Your task to perform on an android device: toggle pop-ups in chrome Image 0: 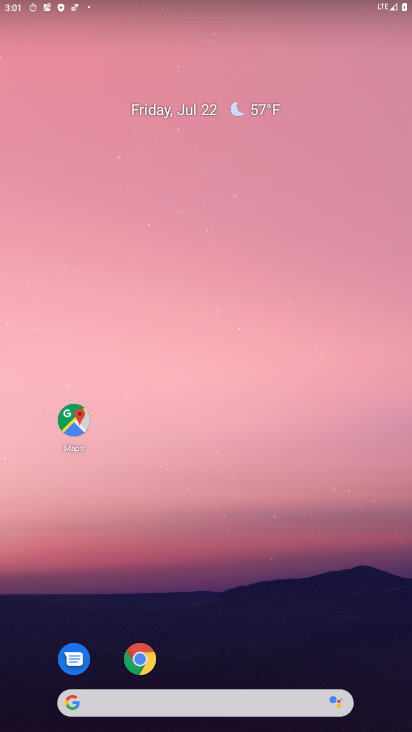
Step 0: click (134, 660)
Your task to perform on an android device: toggle pop-ups in chrome Image 1: 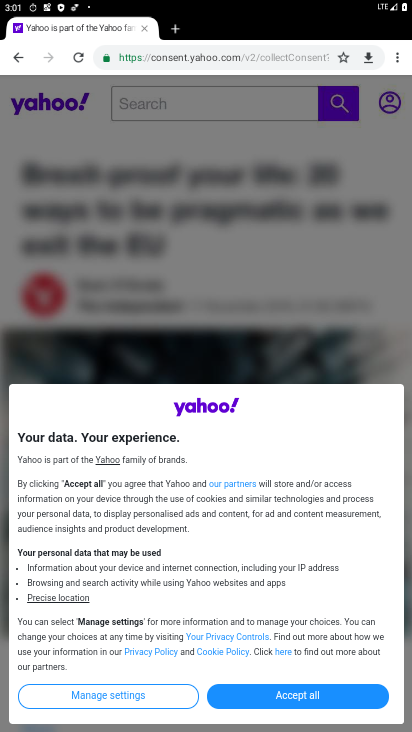
Step 1: click (395, 48)
Your task to perform on an android device: toggle pop-ups in chrome Image 2: 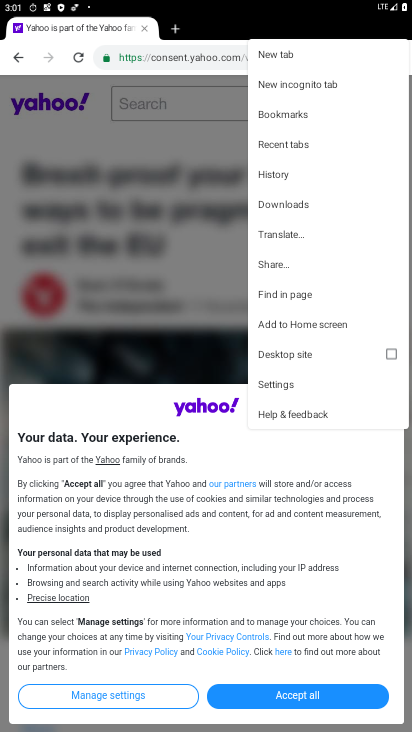
Step 2: click (267, 384)
Your task to perform on an android device: toggle pop-ups in chrome Image 3: 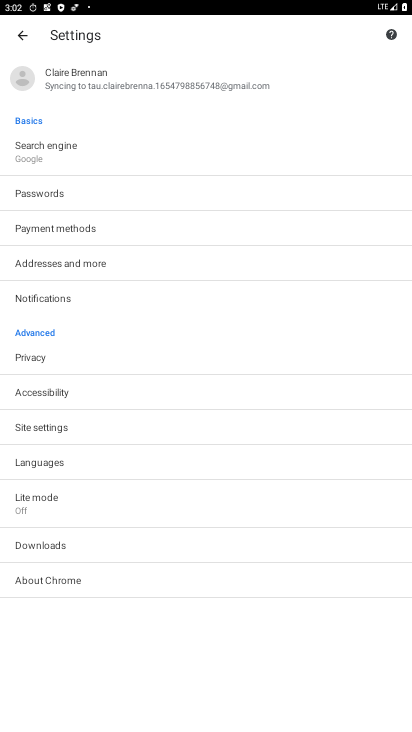
Step 3: click (54, 431)
Your task to perform on an android device: toggle pop-ups in chrome Image 4: 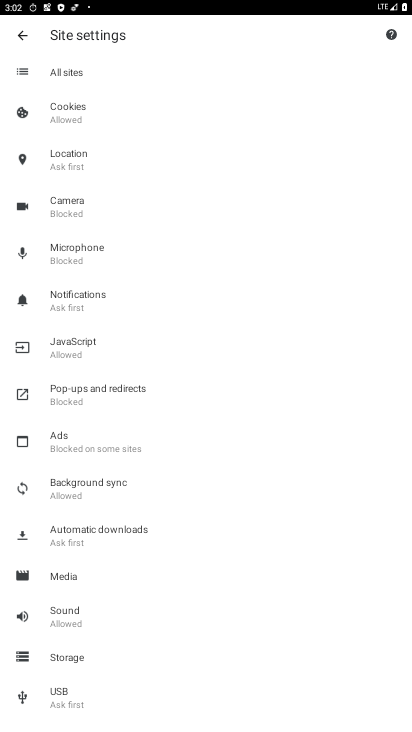
Step 4: click (89, 406)
Your task to perform on an android device: toggle pop-ups in chrome Image 5: 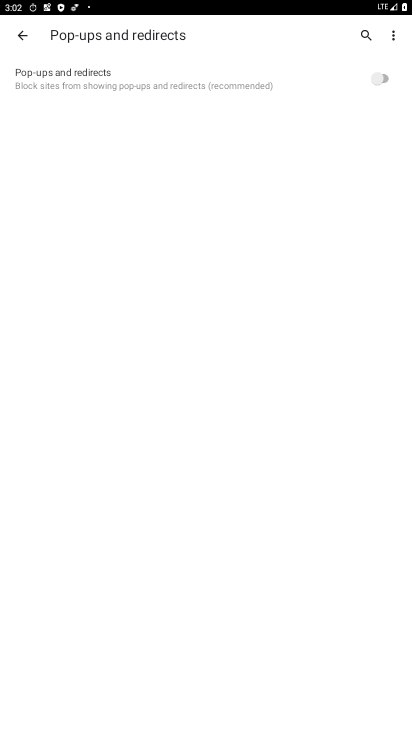
Step 5: click (389, 77)
Your task to perform on an android device: toggle pop-ups in chrome Image 6: 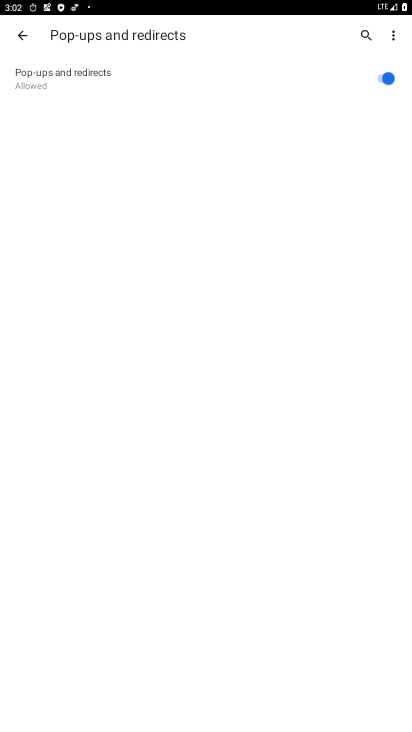
Step 6: task complete